Your task to perform on an android device: toggle notification dots Image 0: 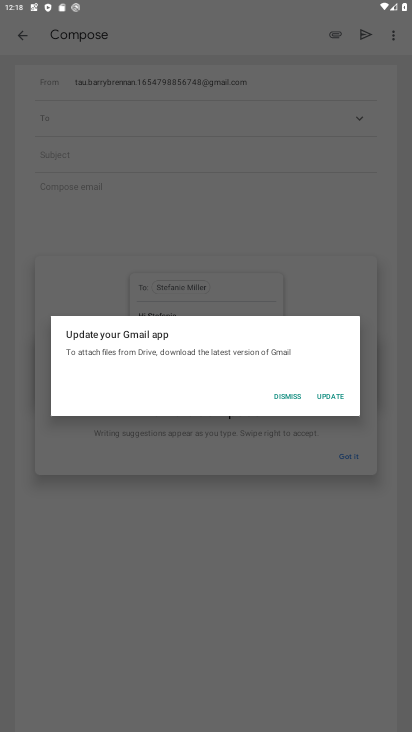
Step 0: click (290, 389)
Your task to perform on an android device: toggle notification dots Image 1: 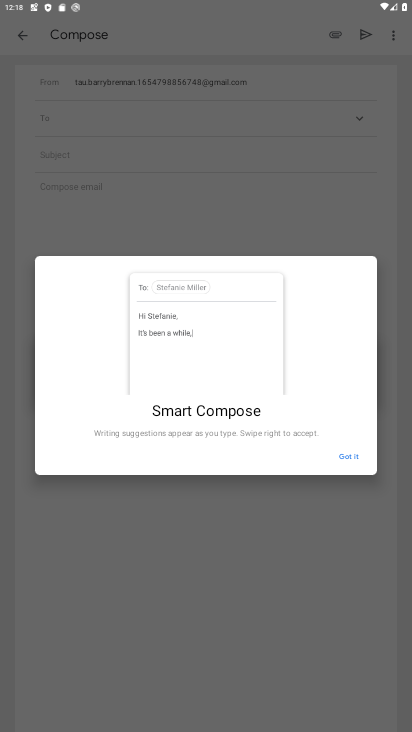
Step 1: press home button
Your task to perform on an android device: toggle notification dots Image 2: 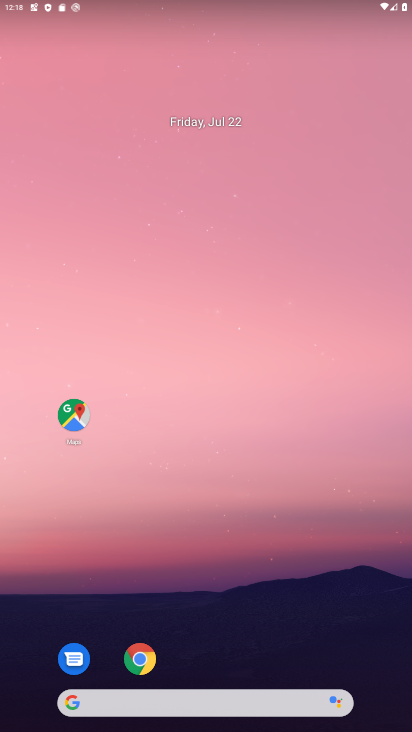
Step 2: drag from (167, 603) to (147, 282)
Your task to perform on an android device: toggle notification dots Image 3: 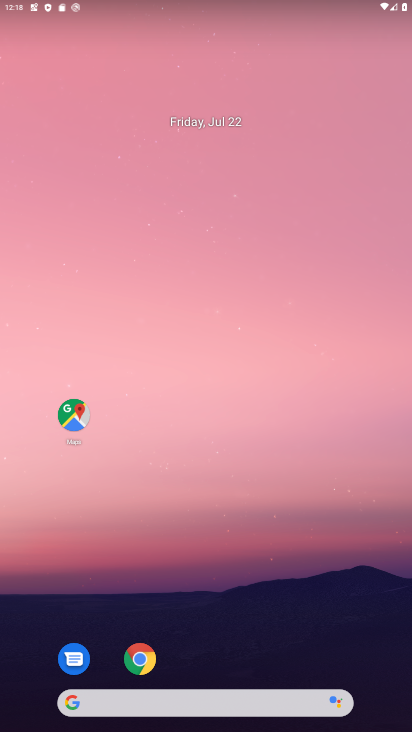
Step 3: drag from (199, 633) to (218, 203)
Your task to perform on an android device: toggle notification dots Image 4: 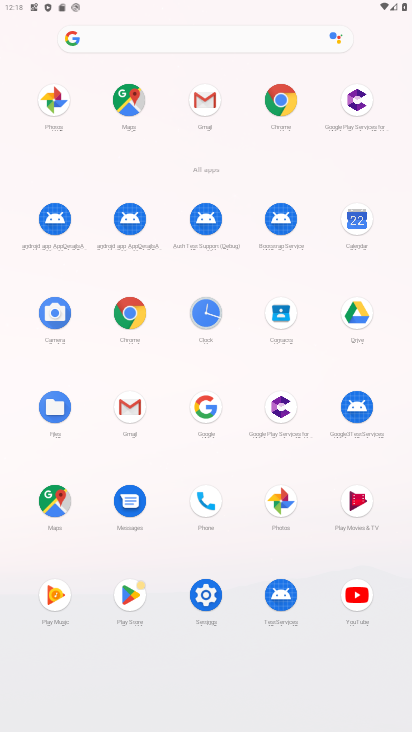
Step 4: click (194, 595)
Your task to perform on an android device: toggle notification dots Image 5: 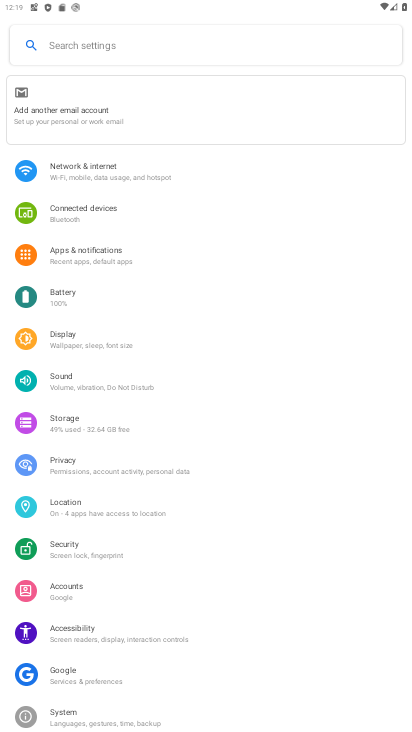
Step 5: click (81, 262)
Your task to perform on an android device: toggle notification dots Image 6: 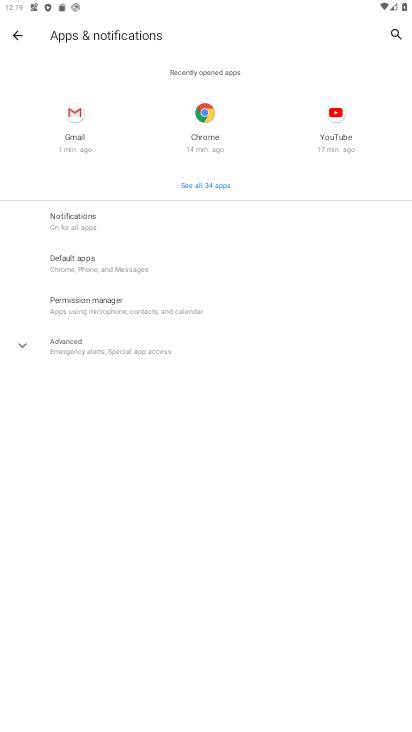
Step 6: click (56, 219)
Your task to perform on an android device: toggle notification dots Image 7: 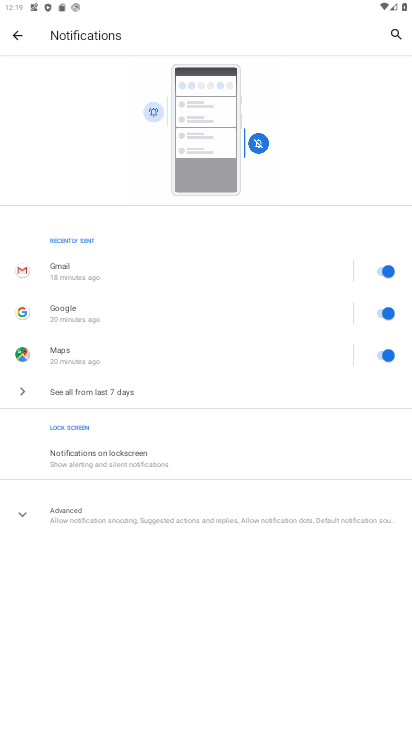
Step 7: click (128, 457)
Your task to perform on an android device: toggle notification dots Image 8: 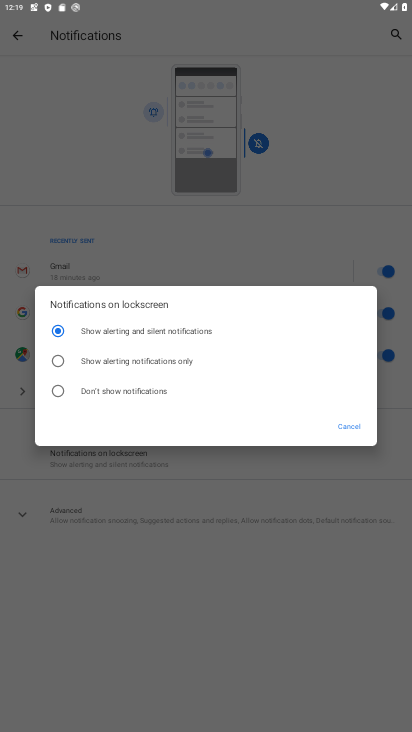
Step 8: click (341, 419)
Your task to perform on an android device: toggle notification dots Image 9: 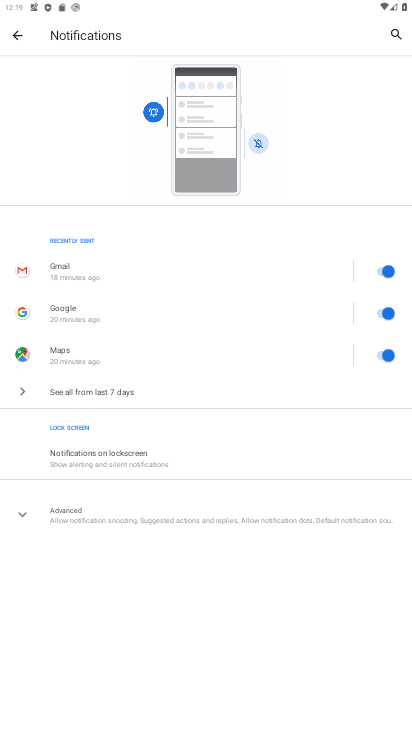
Step 9: click (147, 520)
Your task to perform on an android device: toggle notification dots Image 10: 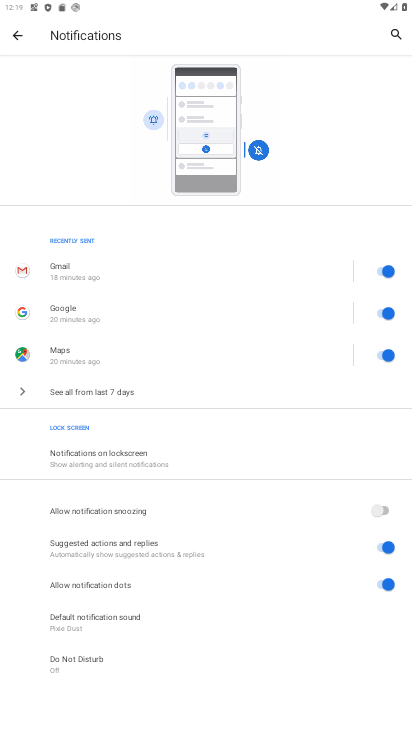
Step 10: click (384, 585)
Your task to perform on an android device: toggle notification dots Image 11: 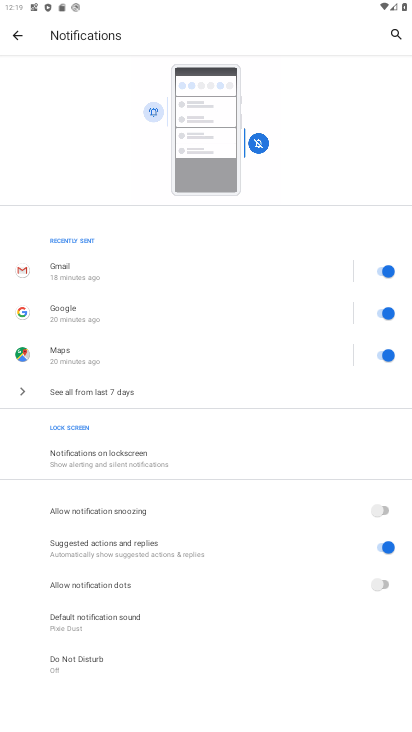
Step 11: task complete